Your task to perform on an android device: turn off location history Image 0: 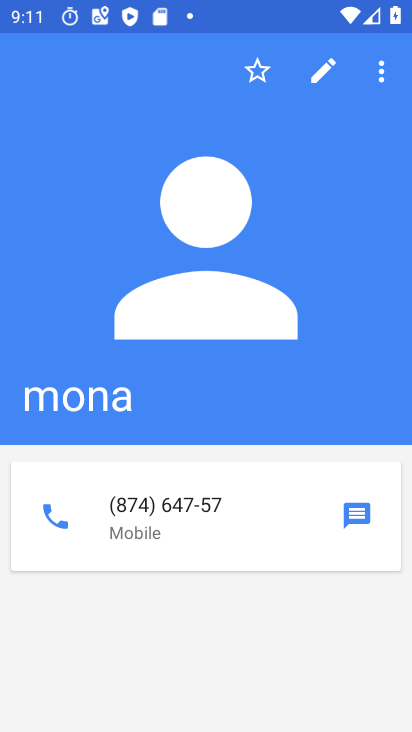
Step 0: press home button
Your task to perform on an android device: turn off location history Image 1: 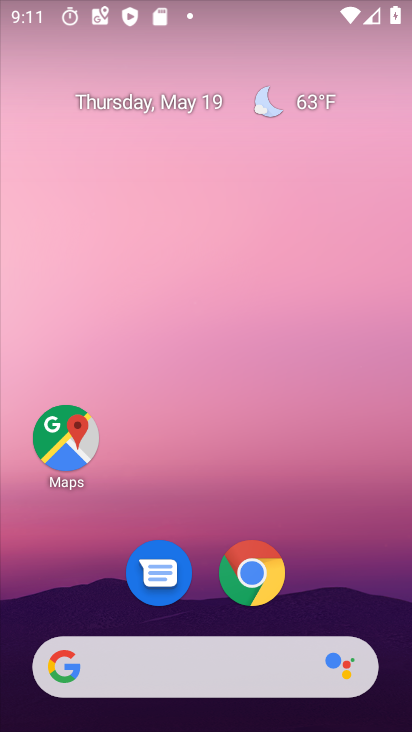
Step 1: click (53, 437)
Your task to perform on an android device: turn off location history Image 2: 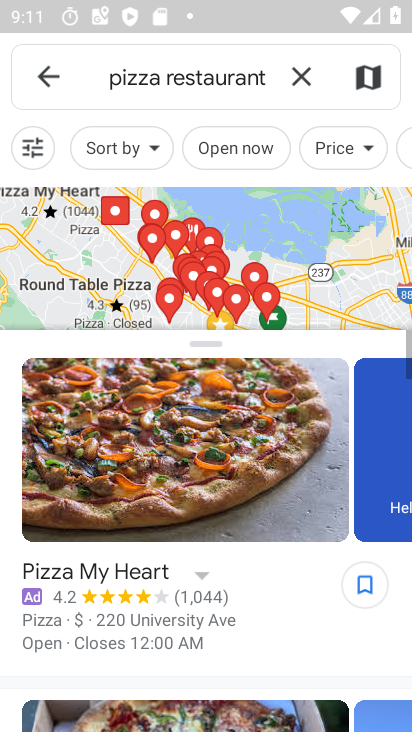
Step 2: click (296, 83)
Your task to perform on an android device: turn off location history Image 3: 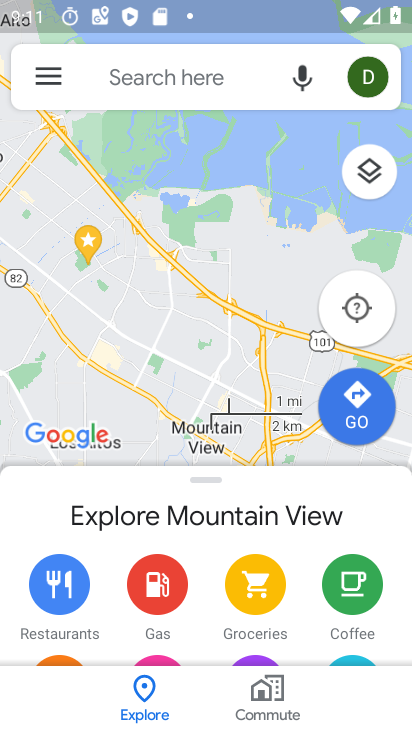
Step 3: click (39, 79)
Your task to perform on an android device: turn off location history Image 4: 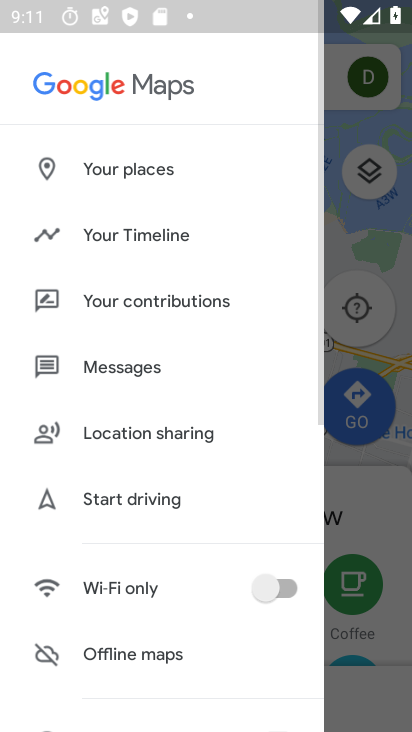
Step 4: click (90, 234)
Your task to perform on an android device: turn off location history Image 5: 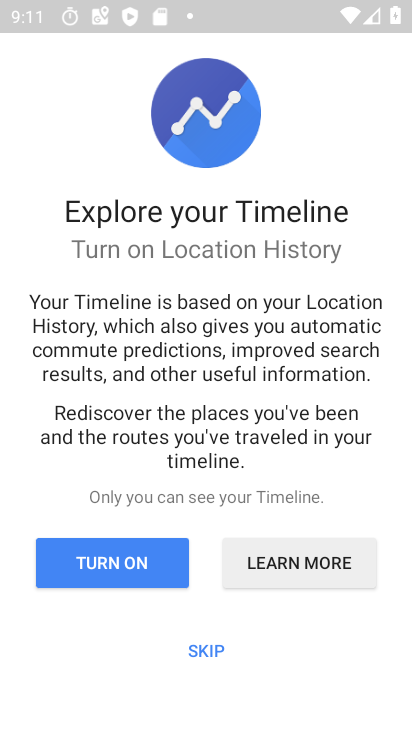
Step 5: click (207, 657)
Your task to perform on an android device: turn off location history Image 6: 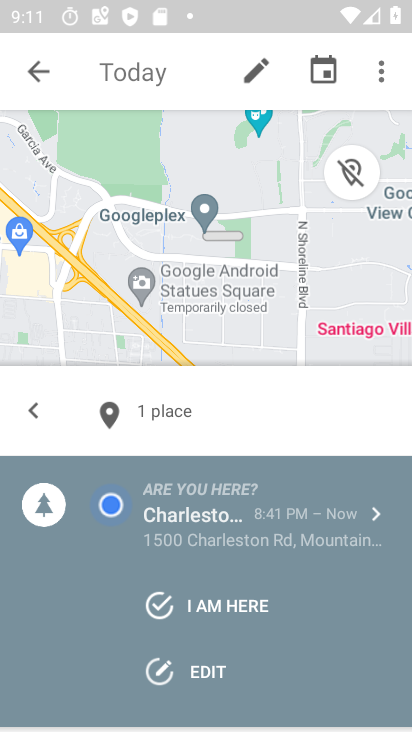
Step 6: click (383, 77)
Your task to perform on an android device: turn off location history Image 7: 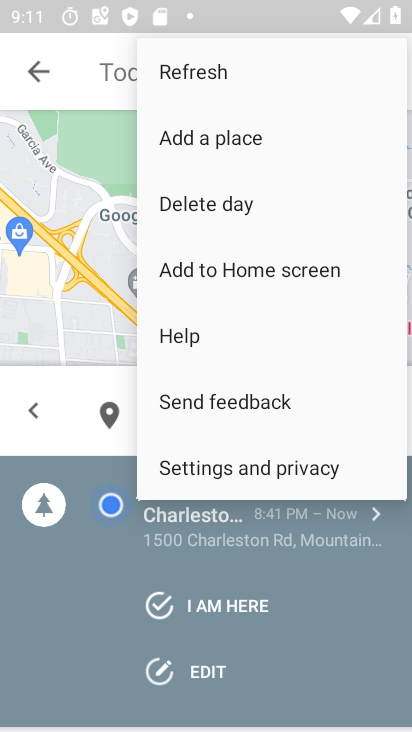
Step 7: click (246, 474)
Your task to perform on an android device: turn off location history Image 8: 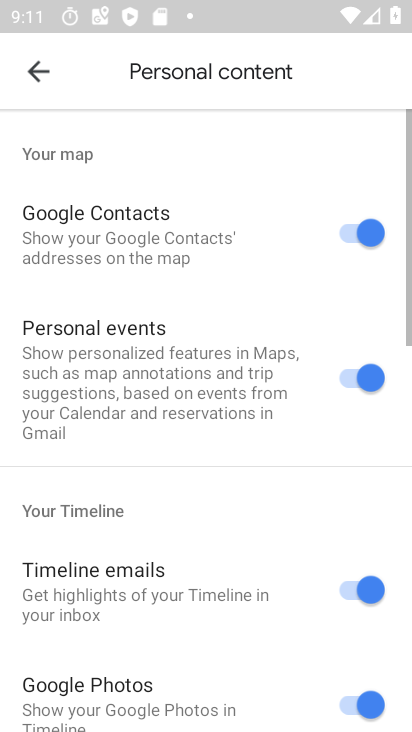
Step 8: drag from (171, 571) to (173, 115)
Your task to perform on an android device: turn off location history Image 9: 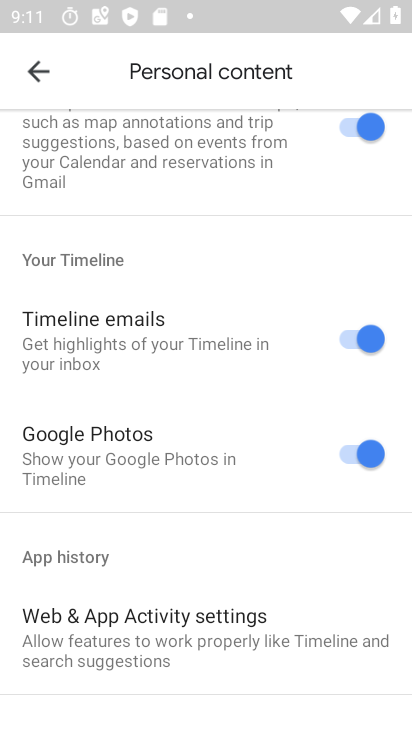
Step 9: drag from (126, 473) to (144, 83)
Your task to perform on an android device: turn off location history Image 10: 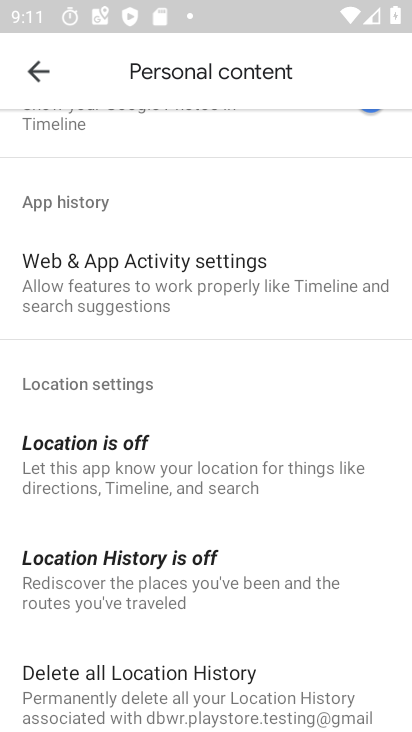
Step 10: click (130, 578)
Your task to perform on an android device: turn off location history Image 11: 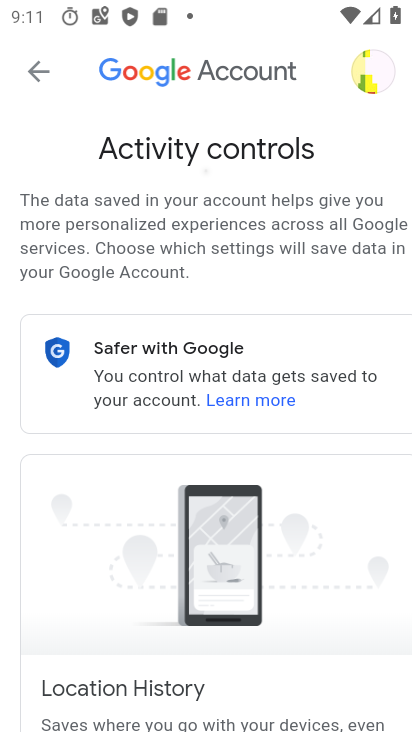
Step 11: task complete